Your task to perform on an android device: Do I have any events this weekend? Image 0: 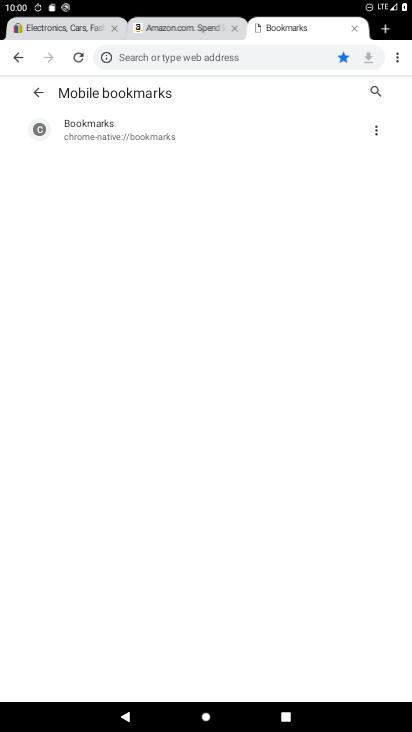
Step 0: press home button
Your task to perform on an android device: Do I have any events this weekend? Image 1: 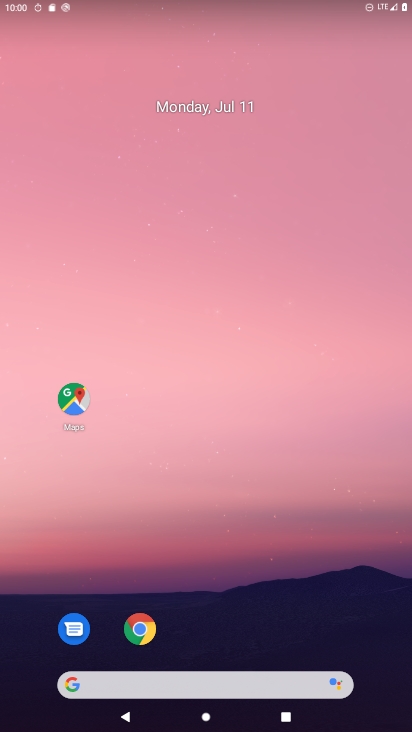
Step 1: click (212, 97)
Your task to perform on an android device: Do I have any events this weekend? Image 2: 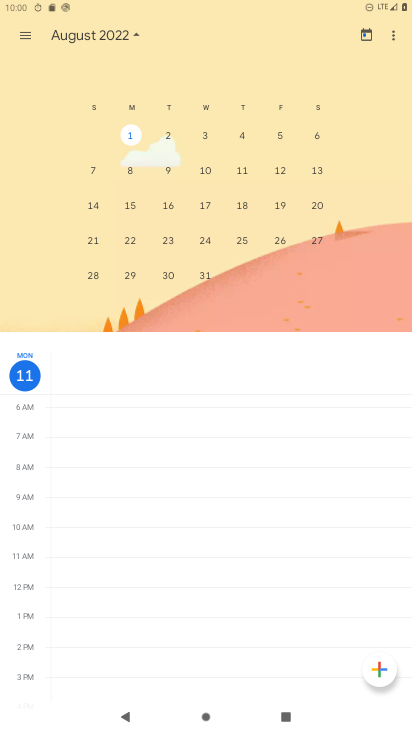
Step 2: click (321, 131)
Your task to perform on an android device: Do I have any events this weekend? Image 3: 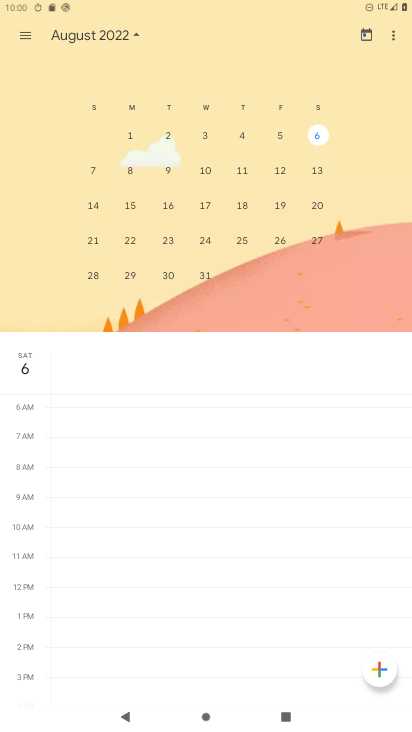
Step 3: task complete